Your task to perform on an android device: create a new album in the google photos Image 0: 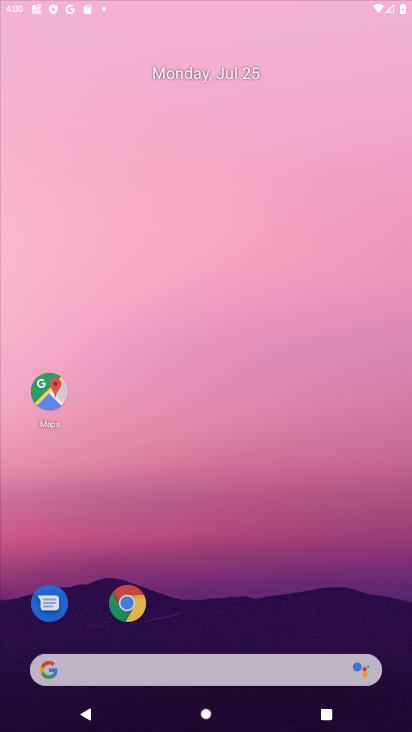
Step 0: press home button
Your task to perform on an android device: create a new album in the google photos Image 1: 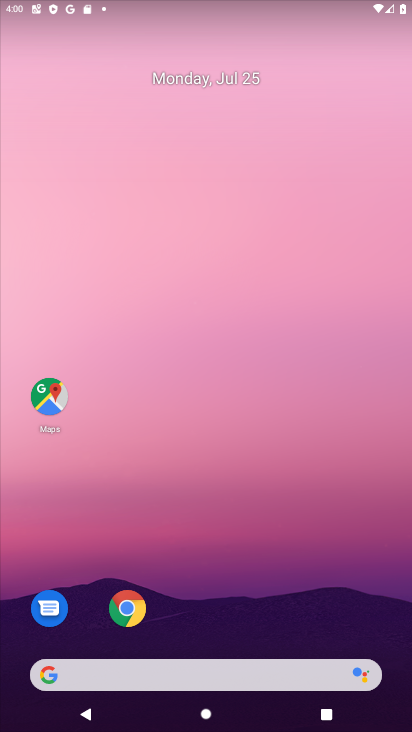
Step 1: drag from (221, 640) to (140, 19)
Your task to perform on an android device: create a new album in the google photos Image 2: 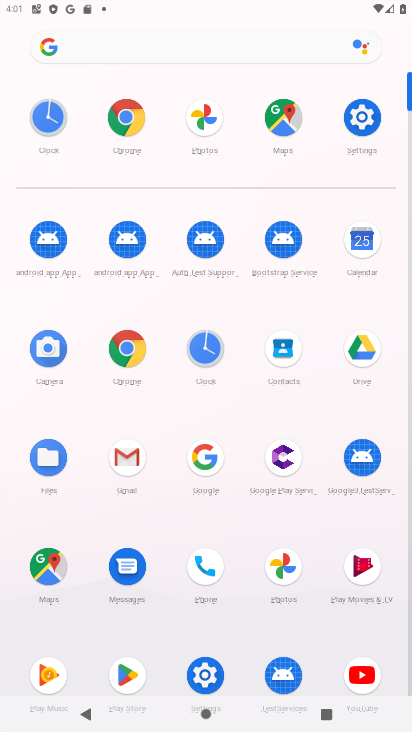
Step 2: click (282, 570)
Your task to perform on an android device: create a new album in the google photos Image 3: 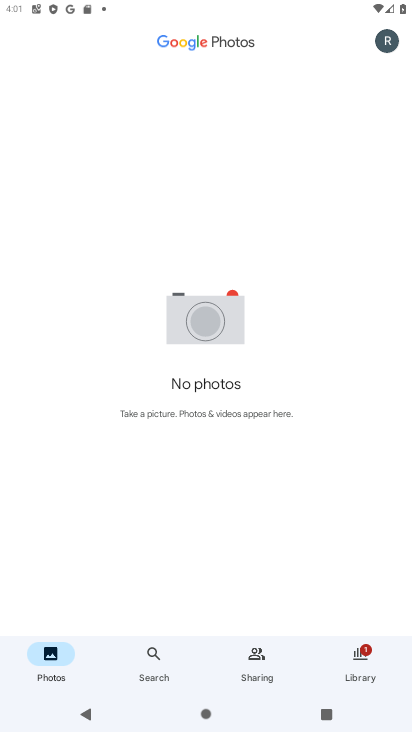
Step 3: click (264, 665)
Your task to perform on an android device: create a new album in the google photos Image 4: 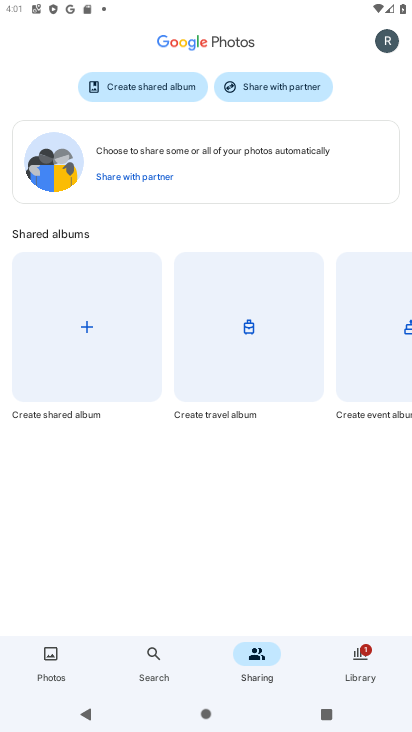
Step 4: click (120, 94)
Your task to perform on an android device: create a new album in the google photos Image 5: 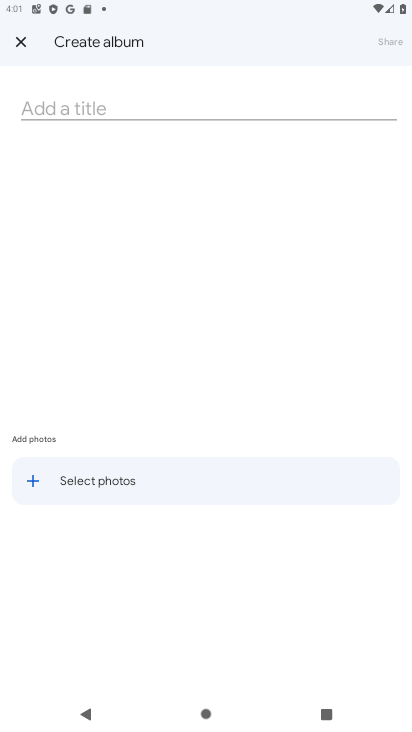
Step 5: task complete